Your task to perform on an android device: Go to display settings Image 0: 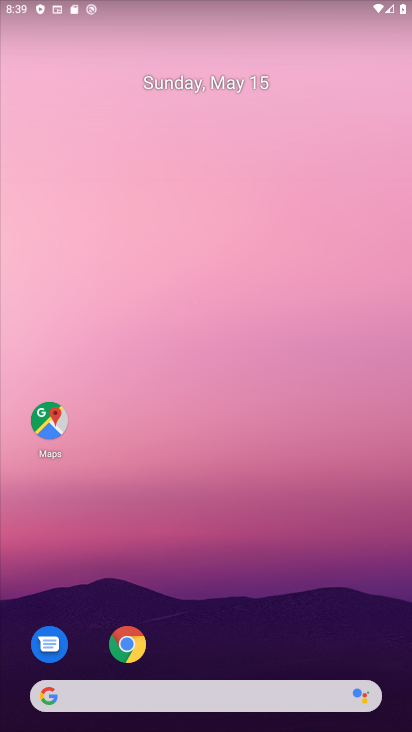
Step 0: drag from (183, 668) to (94, 2)
Your task to perform on an android device: Go to display settings Image 1: 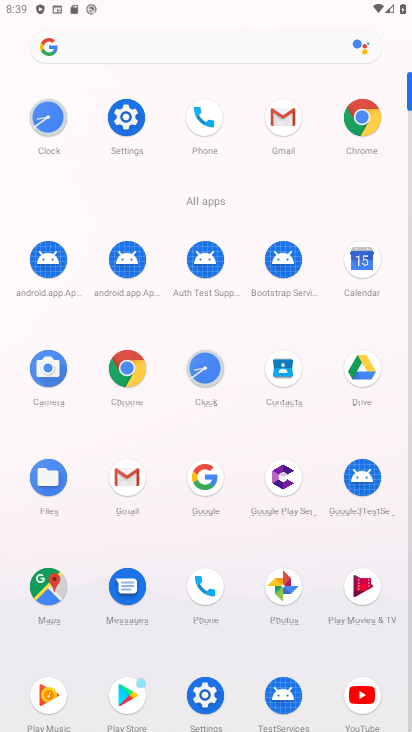
Step 1: click (131, 119)
Your task to perform on an android device: Go to display settings Image 2: 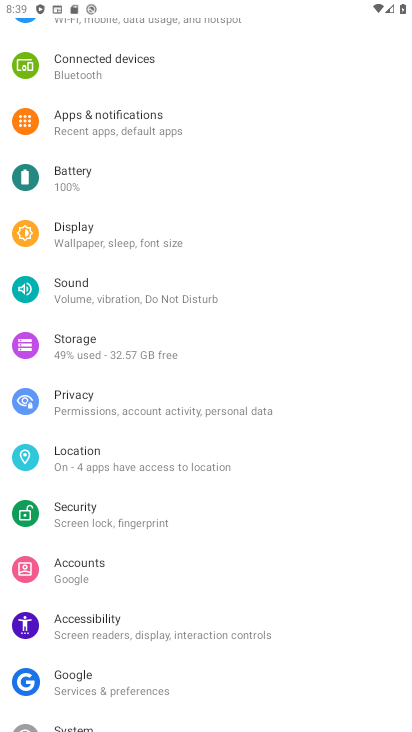
Step 2: click (101, 229)
Your task to perform on an android device: Go to display settings Image 3: 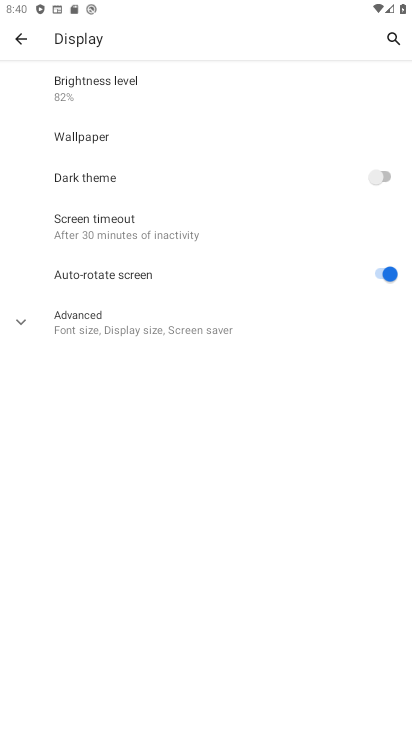
Step 3: task complete